Your task to perform on an android device: Open the map Image 0: 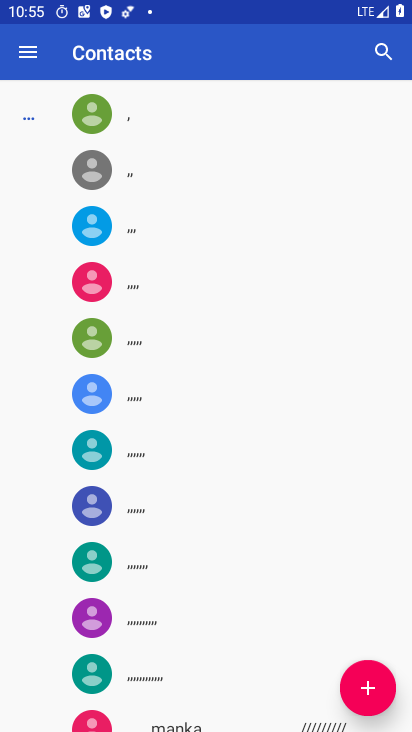
Step 0: press home button
Your task to perform on an android device: Open the map Image 1: 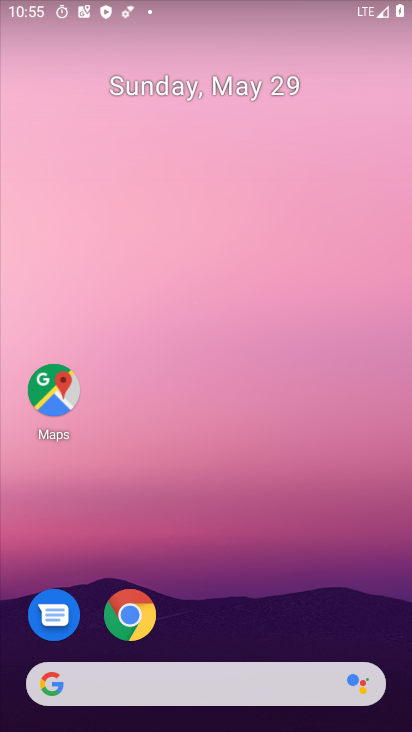
Step 1: drag from (354, 620) to (387, 330)
Your task to perform on an android device: Open the map Image 2: 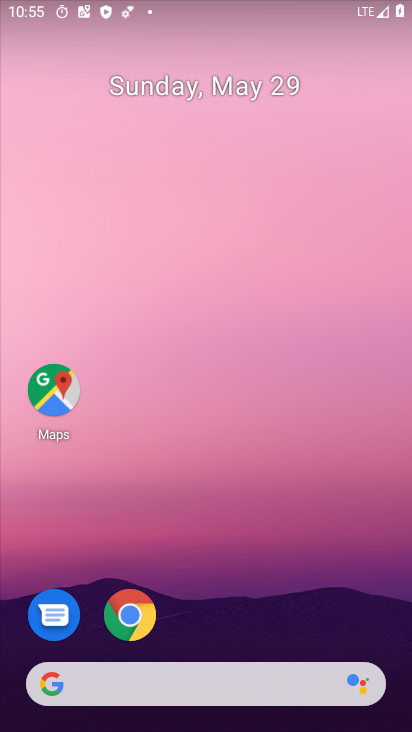
Step 2: drag from (369, 603) to (393, 69)
Your task to perform on an android device: Open the map Image 3: 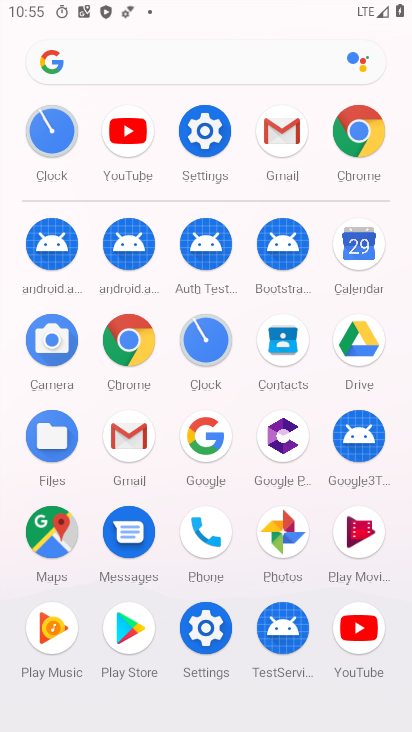
Step 3: click (40, 549)
Your task to perform on an android device: Open the map Image 4: 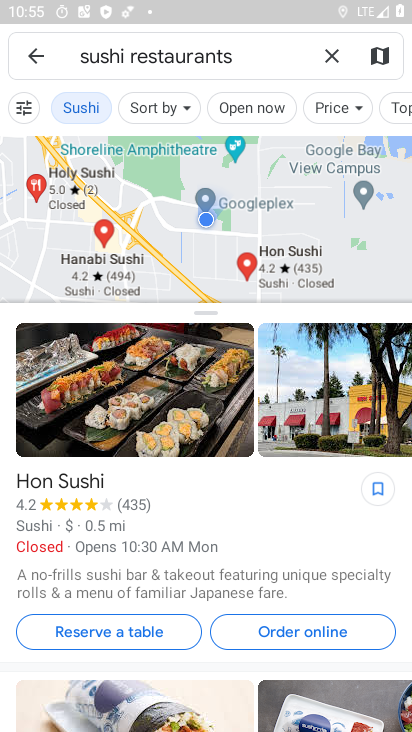
Step 4: task complete